Your task to perform on an android device: turn off wifi Image 0: 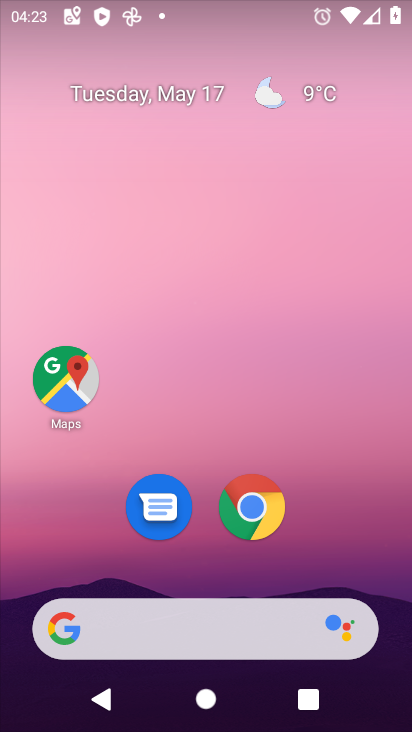
Step 0: drag from (331, 513) to (238, 83)
Your task to perform on an android device: turn off wifi Image 1: 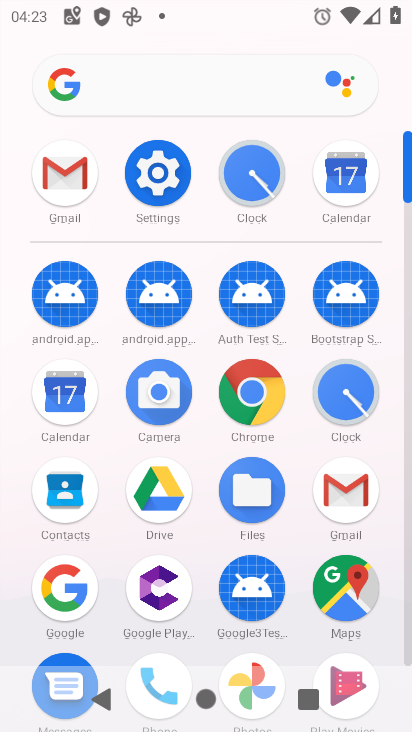
Step 1: click (160, 180)
Your task to perform on an android device: turn off wifi Image 2: 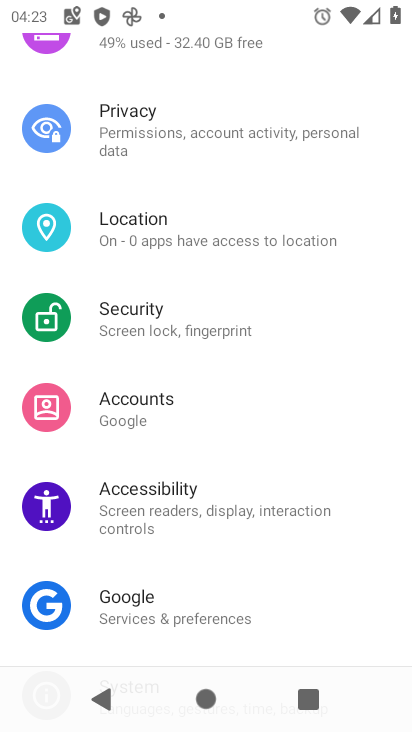
Step 2: drag from (252, 189) to (219, 643)
Your task to perform on an android device: turn off wifi Image 3: 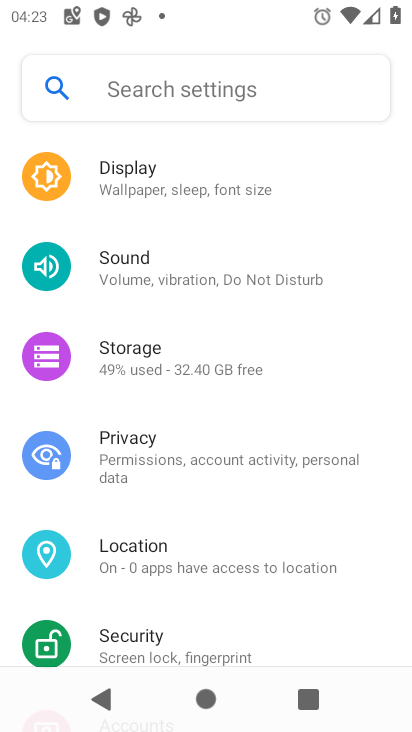
Step 3: drag from (226, 189) to (205, 631)
Your task to perform on an android device: turn off wifi Image 4: 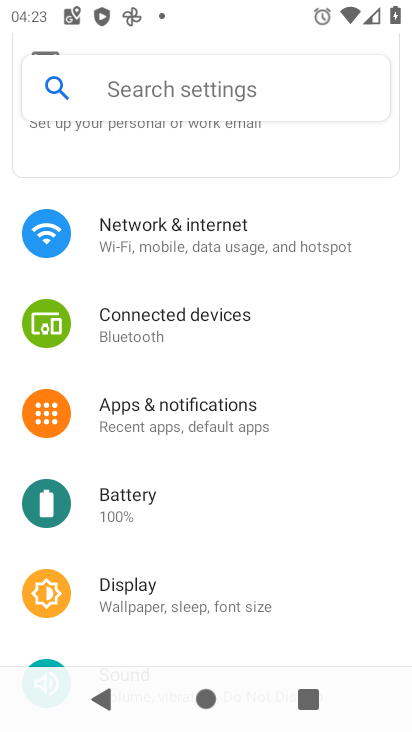
Step 4: click (144, 227)
Your task to perform on an android device: turn off wifi Image 5: 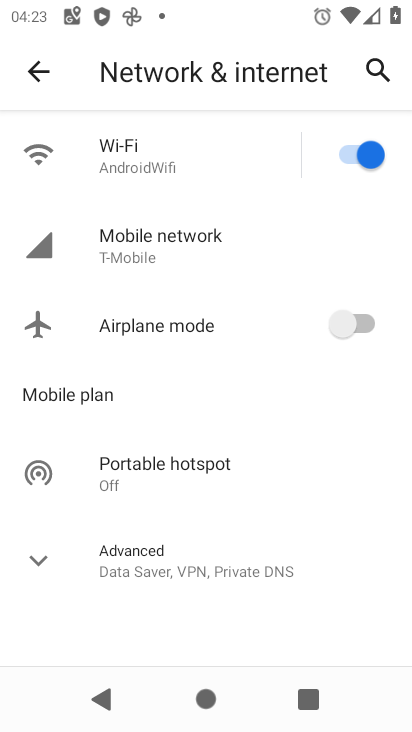
Step 5: click (170, 148)
Your task to perform on an android device: turn off wifi Image 6: 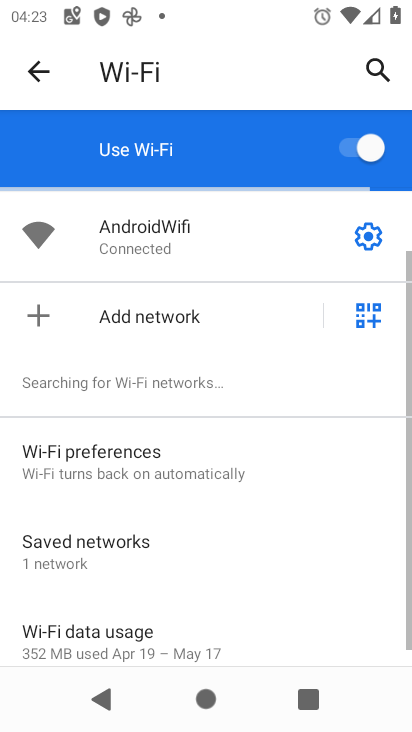
Step 6: click (358, 146)
Your task to perform on an android device: turn off wifi Image 7: 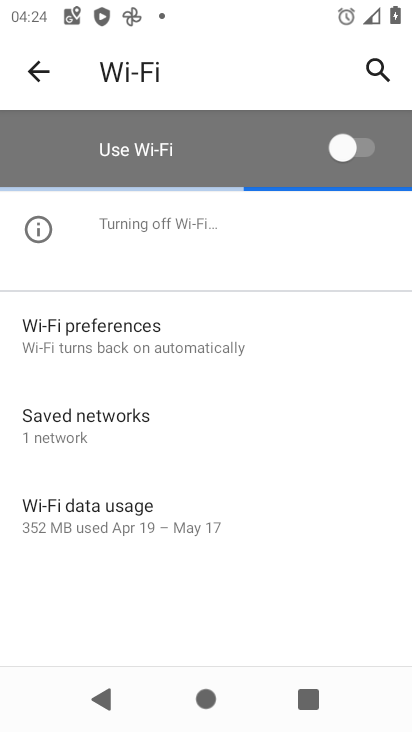
Step 7: task complete